Your task to perform on an android device: Is it going to rain this weekend? Image 0: 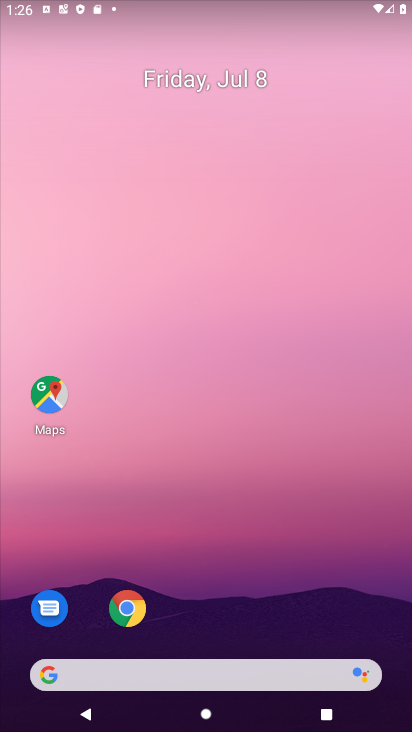
Step 0: drag from (2, 227) to (406, 257)
Your task to perform on an android device: Is it going to rain this weekend? Image 1: 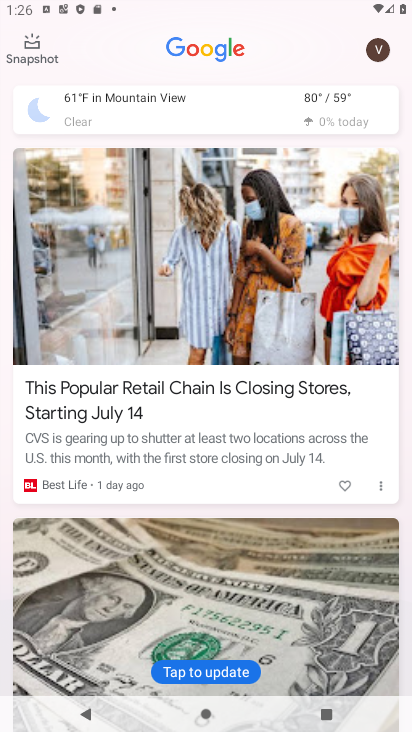
Step 1: click (327, 99)
Your task to perform on an android device: Is it going to rain this weekend? Image 2: 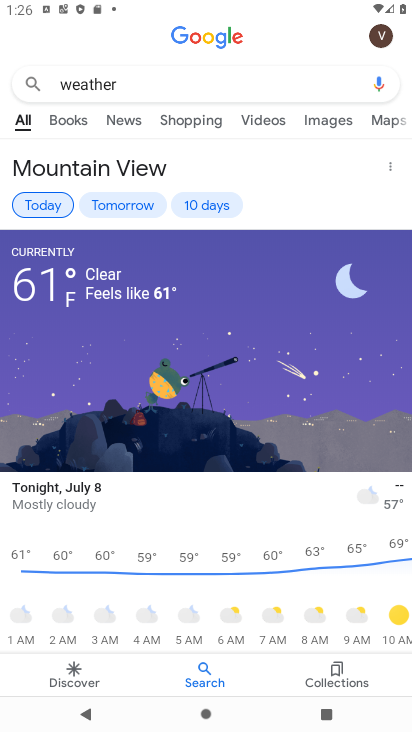
Step 2: click (205, 209)
Your task to perform on an android device: Is it going to rain this weekend? Image 3: 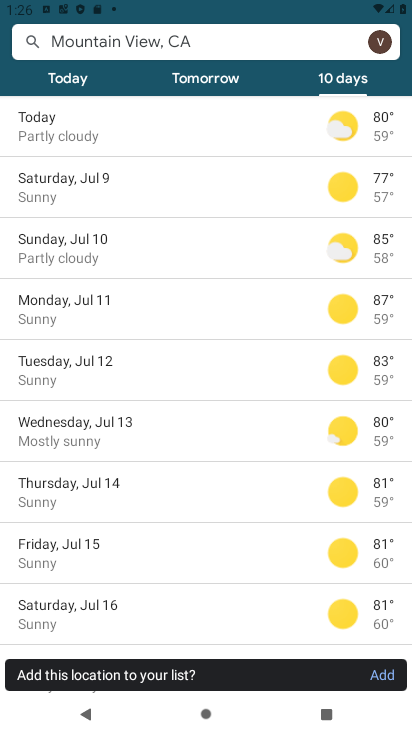
Step 3: task complete